Your task to perform on an android device: turn off location Image 0: 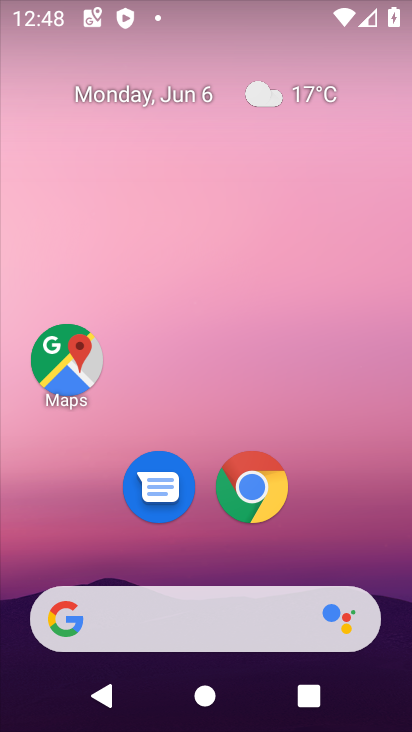
Step 0: drag from (256, 528) to (305, 7)
Your task to perform on an android device: turn off location Image 1: 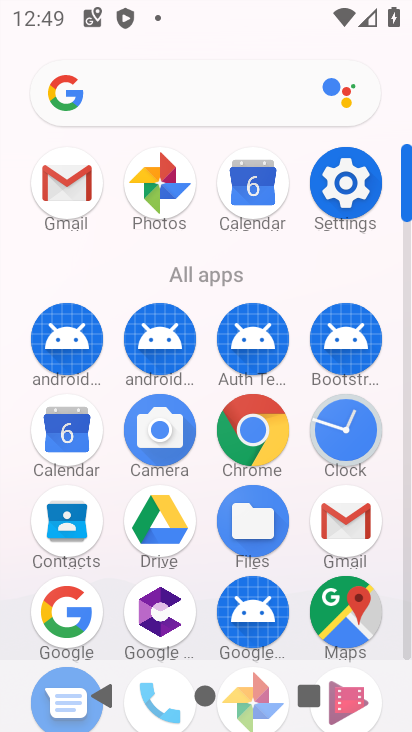
Step 1: click (346, 190)
Your task to perform on an android device: turn off location Image 2: 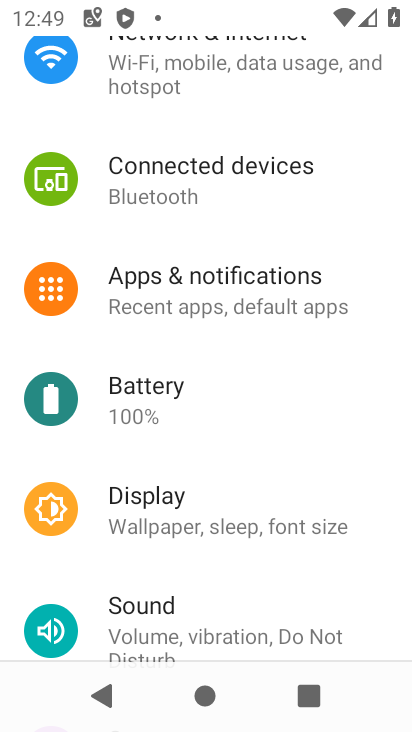
Step 2: drag from (214, 574) to (279, 32)
Your task to perform on an android device: turn off location Image 3: 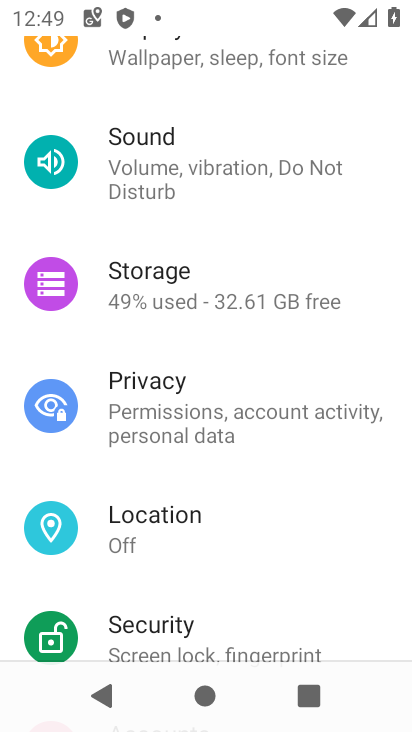
Step 3: click (172, 508)
Your task to perform on an android device: turn off location Image 4: 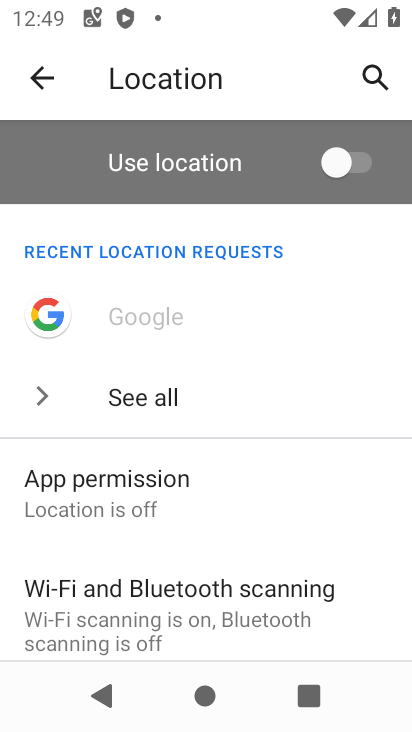
Step 4: task complete